Your task to perform on an android device: Open Youtube and go to "Your channel" Image 0: 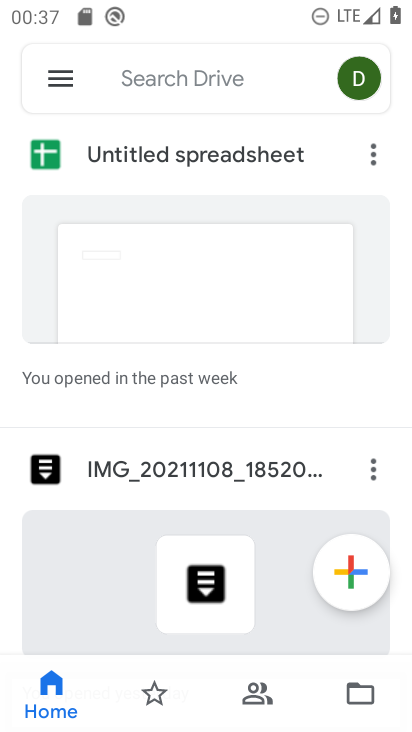
Step 0: press home button
Your task to perform on an android device: Open Youtube and go to "Your channel" Image 1: 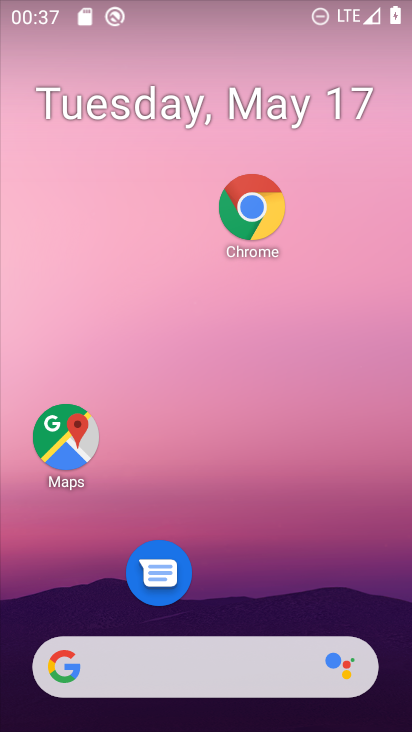
Step 1: drag from (226, 670) to (267, 101)
Your task to perform on an android device: Open Youtube and go to "Your channel" Image 2: 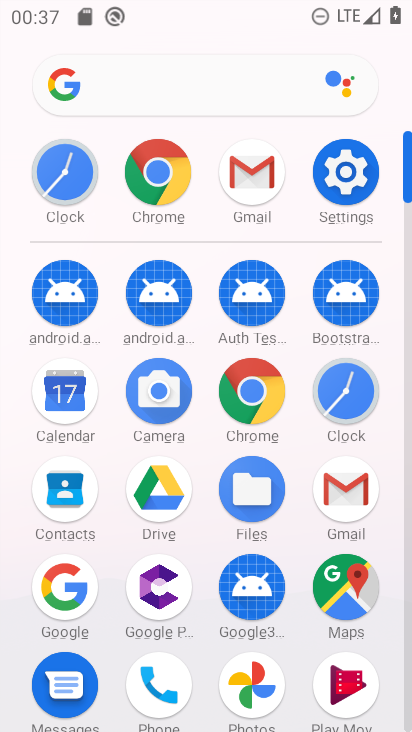
Step 2: drag from (265, 626) to (263, 233)
Your task to perform on an android device: Open Youtube and go to "Your channel" Image 3: 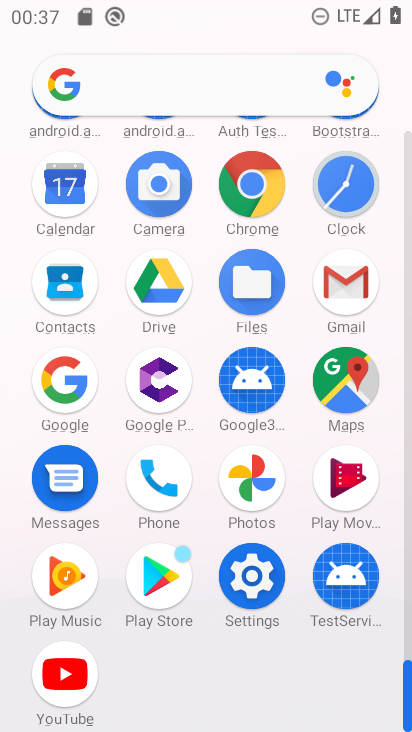
Step 3: click (69, 671)
Your task to perform on an android device: Open Youtube and go to "Your channel" Image 4: 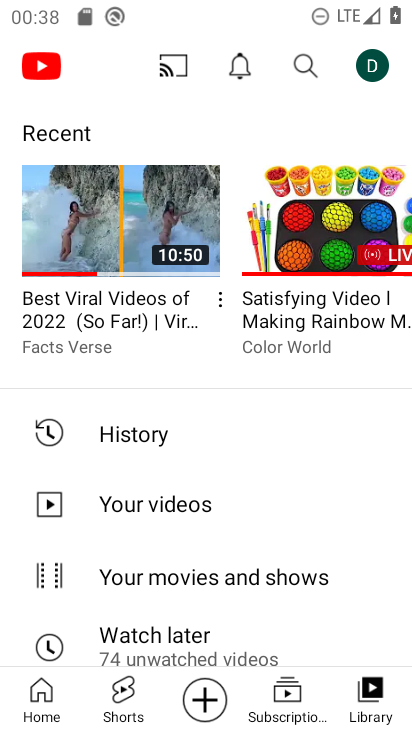
Step 4: task complete